Your task to perform on an android device: turn on priority inbox in the gmail app Image 0: 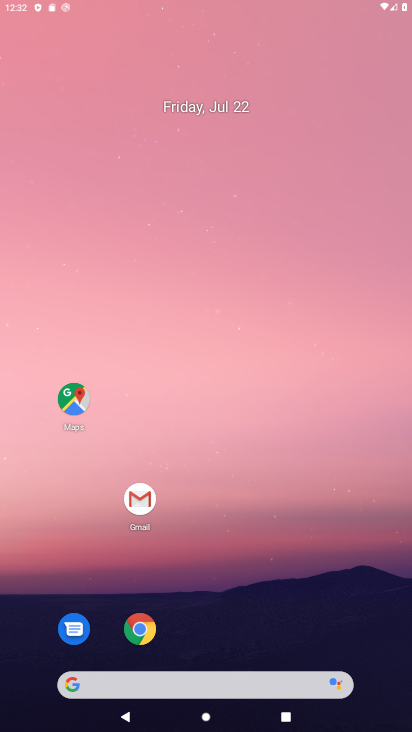
Step 0: click (198, 290)
Your task to perform on an android device: turn on priority inbox in the gmail app Image 1: 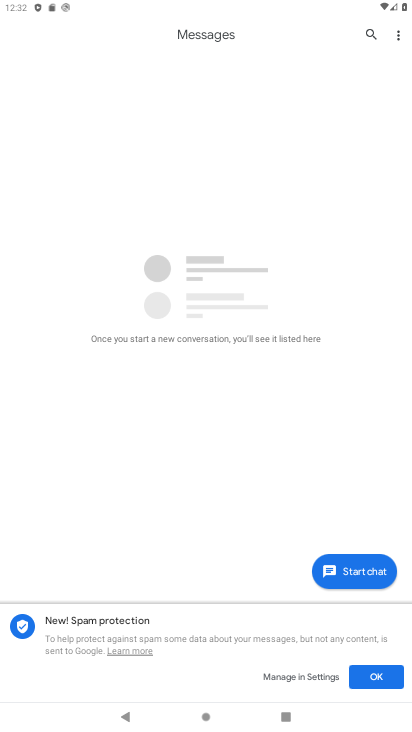
Step 1: drag from (258, 588) to (258, 174)
Your task to perform on an android device: turn on priority inbox in the gmail app Image 2: 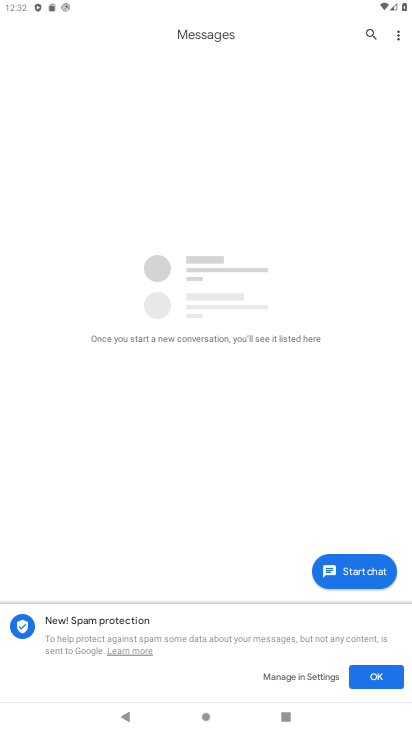
Step 2: press back button
Your task to perform on an android device: turn on priority inbox in the gmail app Image 3: 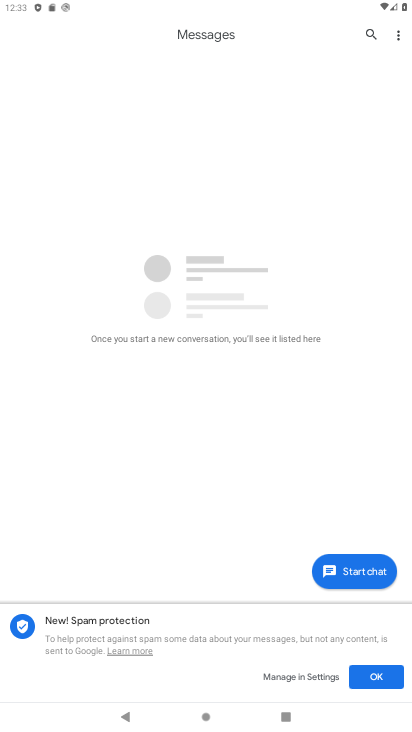
Step 3: press back button
Your task to perform on an android device: turn on priority inbox in the gmail app Image 4: 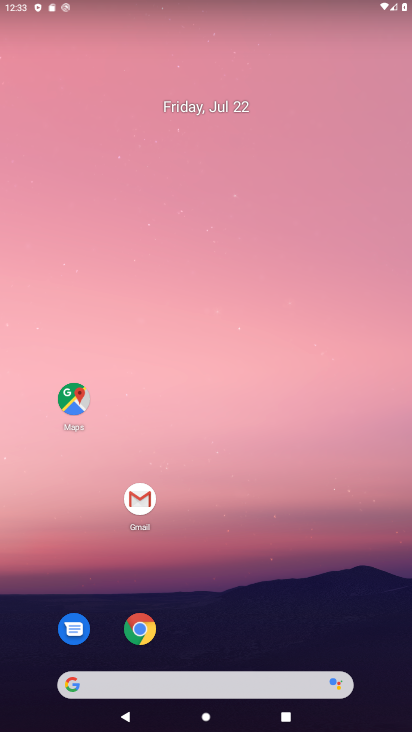
Step 4: drag from (213, 635) to (223, 257)
Your task to perform on an android device: turn on priority inbox in the gmail app Image 5: 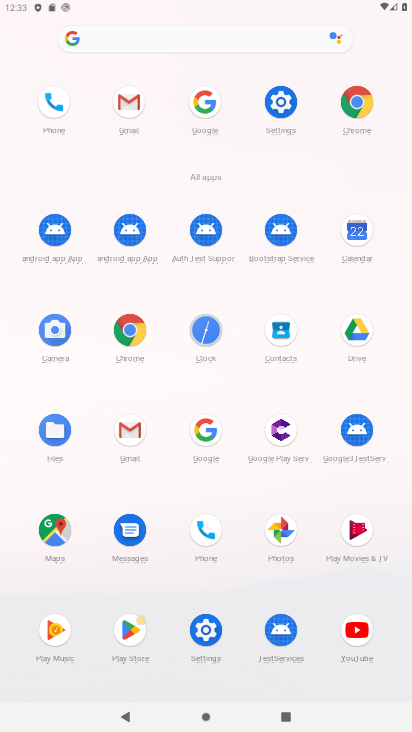
Step 5: click (129, 432)
Your task to perform on an android device: turn on priority inbox in the gmail app Image 6: 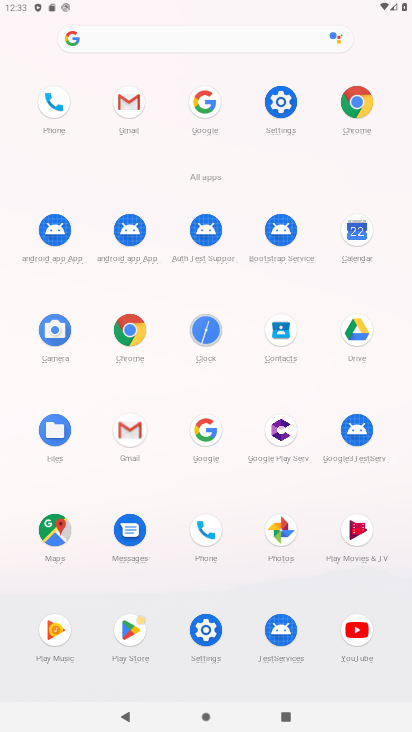
Step 6: click (129, 432)
Your task to perform on an android device: turn on priority inbox in the gmail app Image 7: 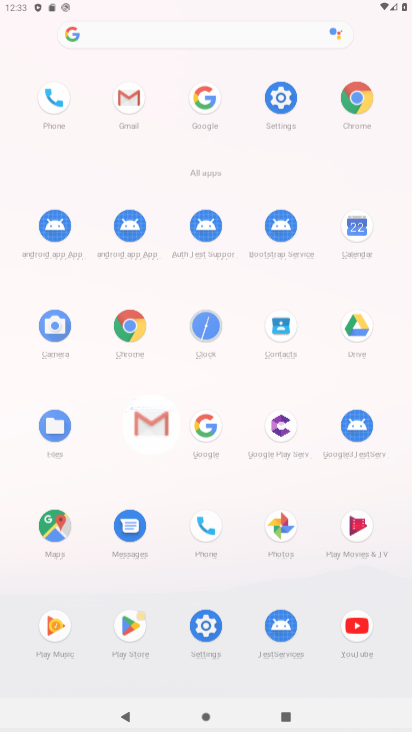
Step 7: click (129, 435)
Your task to perform on an android device: turn on priority inbox in the gmail app Image 8: 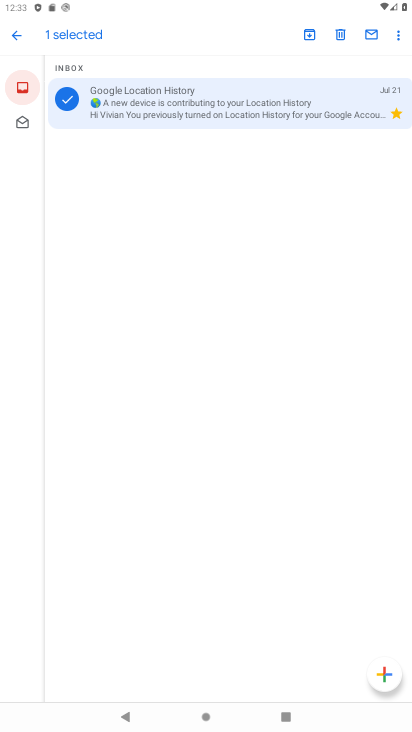
Step 8: click (18, 34)
Your task to perform on an android device: turn on priority inbox in the gmail app Image 9: 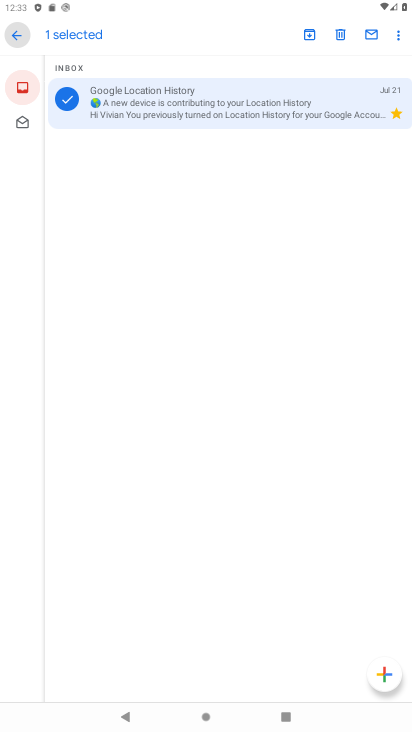
Step 9: click (17, 34)
Your task to perform on an android device: turn on priority inbox in the gmail app Image 10: 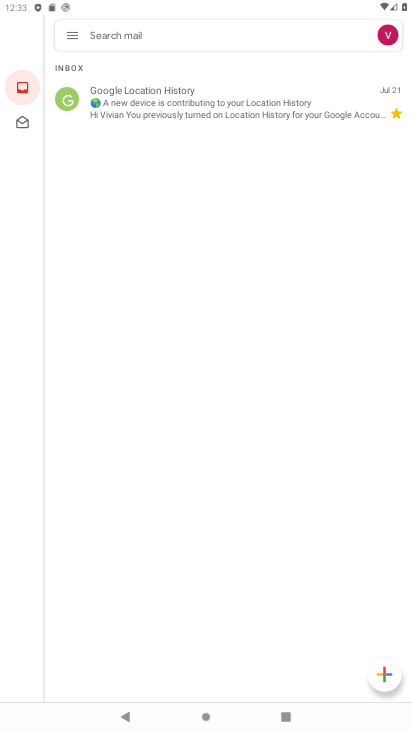
Step 10: click (75, 38)
Your task to perform on an android device: turn on priority inbox in the gmail app Image 11: 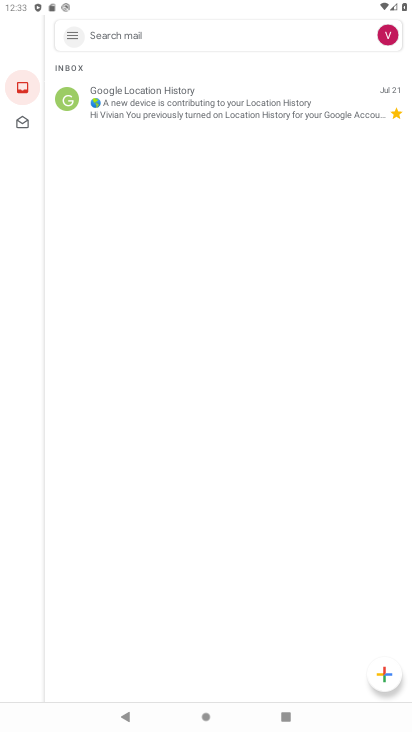
Step 11: click (75, 38)
Your task to perform on an android device: turn on priority inbox in the gmail app Image 12: 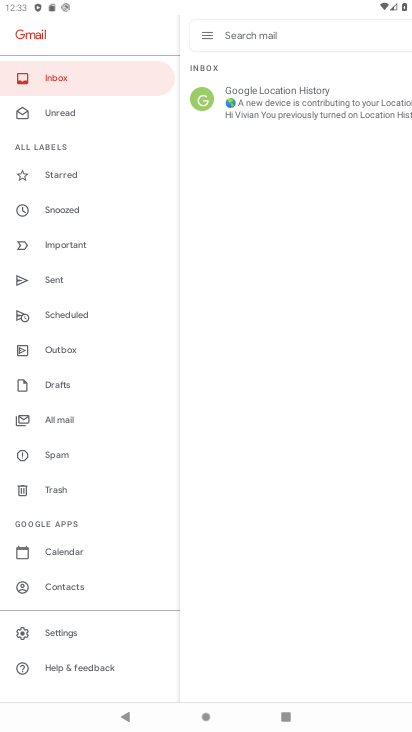
Step 12: drag from (75, 38) to (78, 631)
Your task to perform on an android device: turn on priority inbox in the gmail app Image 13: 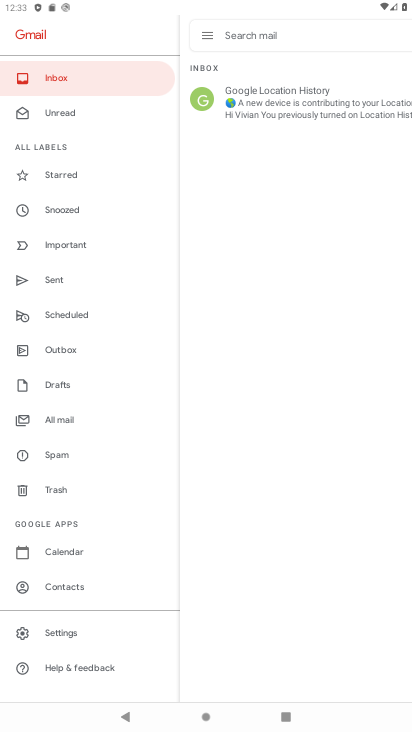
Step 13: click (78, 631)
Your task to perform on an android device: turn on priority inbox in the gmail app Image 14: 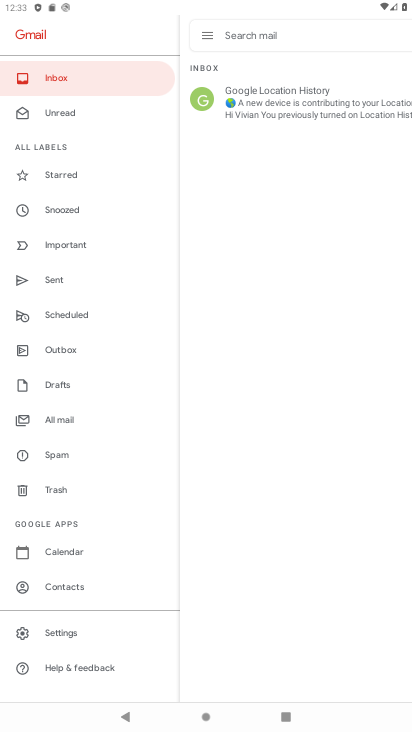
Step 14: click (71, 626)
Your task to perform on an android device: turn on priority inbox in the gmail app Image 15: 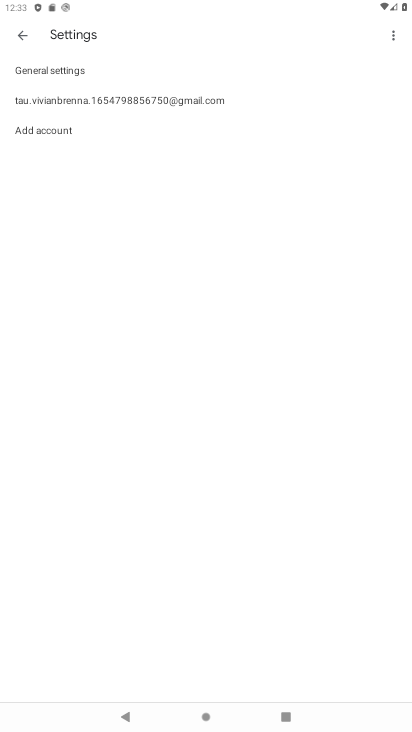
Step 15: click (80, 100)
Your task to perform on an android device: turn on priority inbox in the gmail app Image 16: 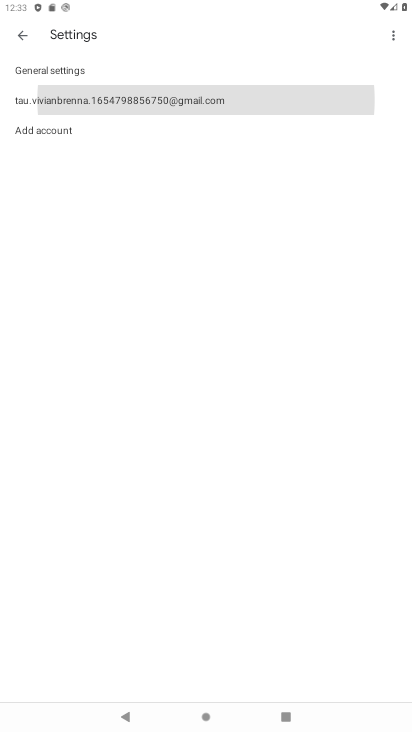
Step 16: click (78, 99)
Your task to perform on an android device: turn on priority inbox in the gmail app Image 17: 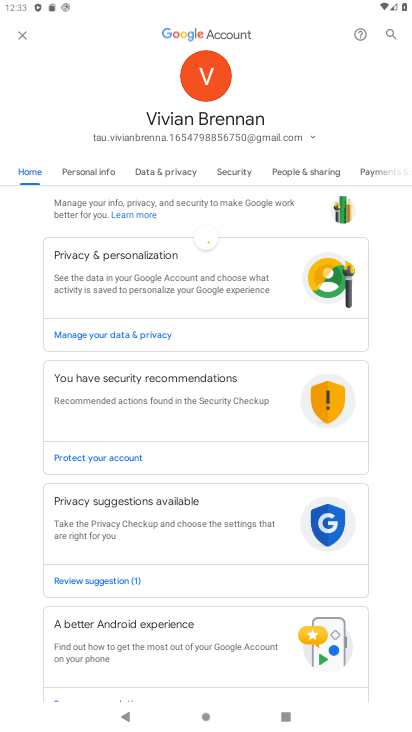
Step 17: click (25, 27)
Your task to perform on an android device: turn on priority inbox in the gmail app Image 18: 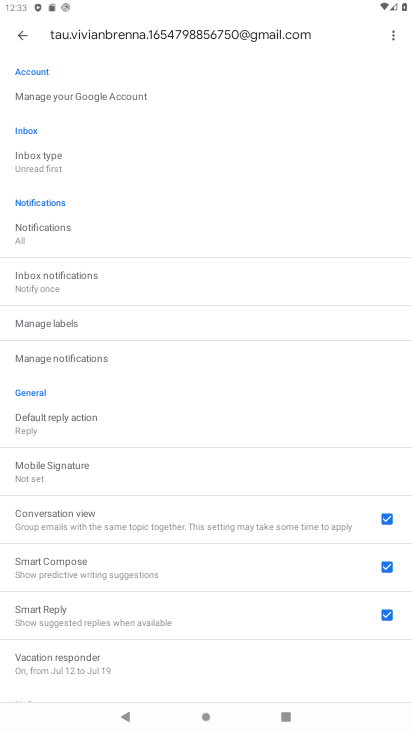
Step 18: click (38, 167)
Your task to perform on an android device: turn on priority inbox in the gmail app Image 19: 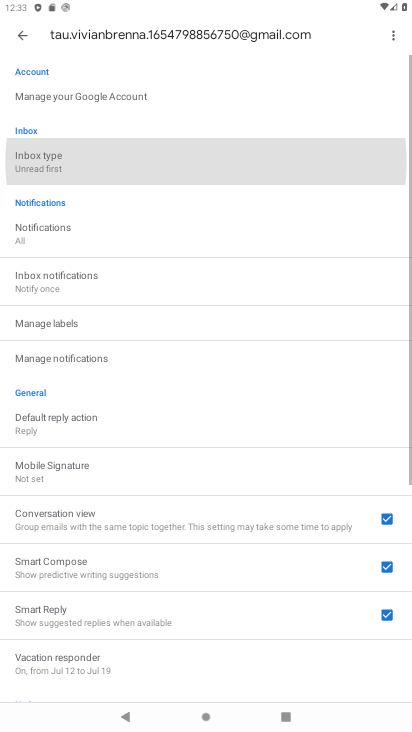
Step 19: click (36, 167)
Your task to perform on an android device: turn on priority inbox in the gmail app Image 20: 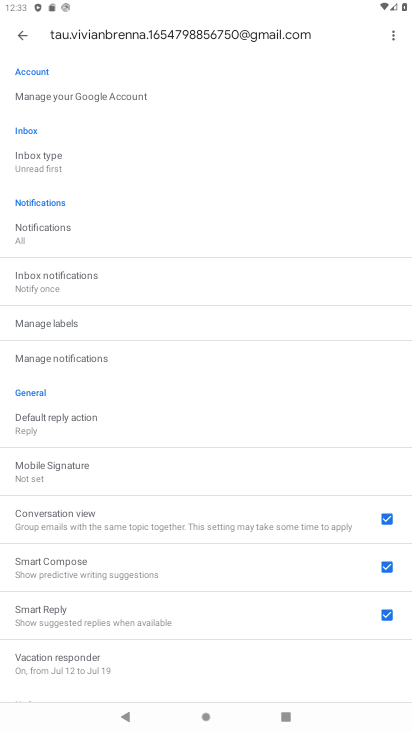
Step 20: click (24, 164)
Your task to perform on an android device: turn on priority inbox in the gmail app Image 21: 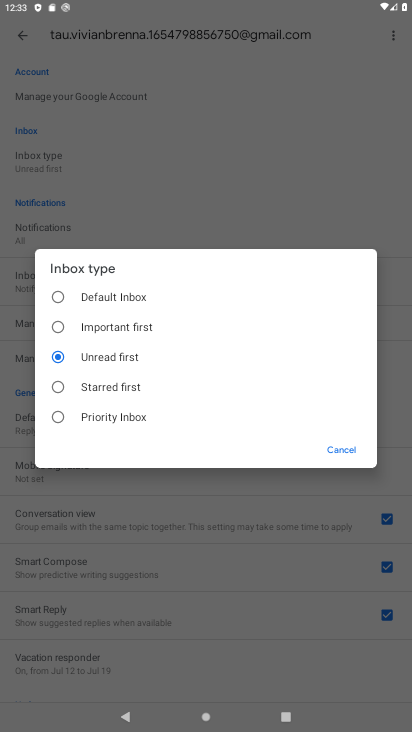
Step 21: click (54, 417)
Your task to perform on an android device: turn on priority inbox in the gmail app Image 22: 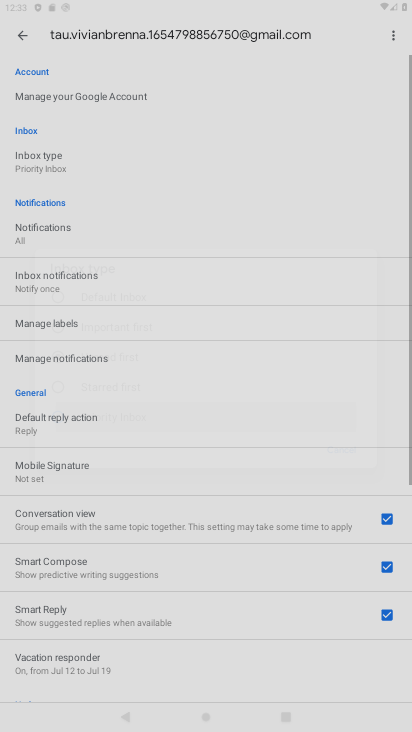
Step 22: click (54, 416)
Your task to perform on an android device: turn on priority inbox in the gmail app Image 23: 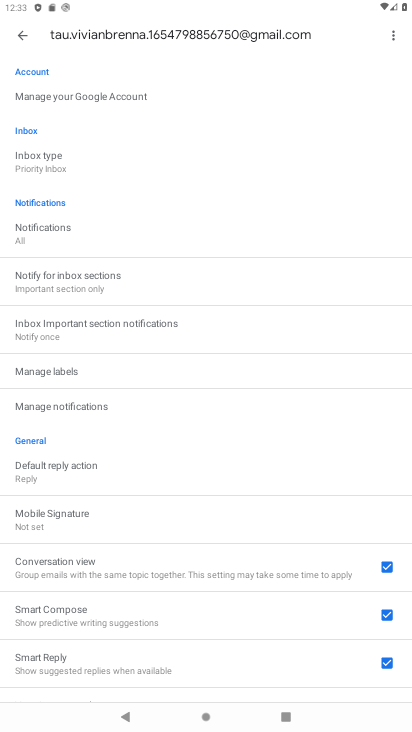
Step 23: task complete